Your task to perform on an android device: allow notifications from all sites in the chrome app Image 0: 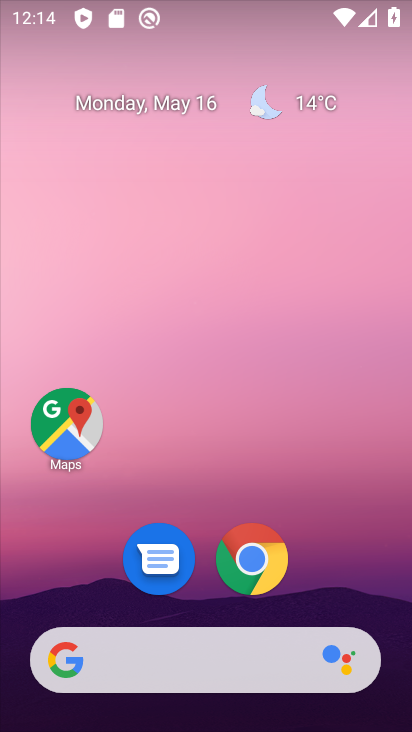
Step 0: click (270, 548)
Your task to perform on an android device: allow notifications from all sites in the chrome app Image 1: 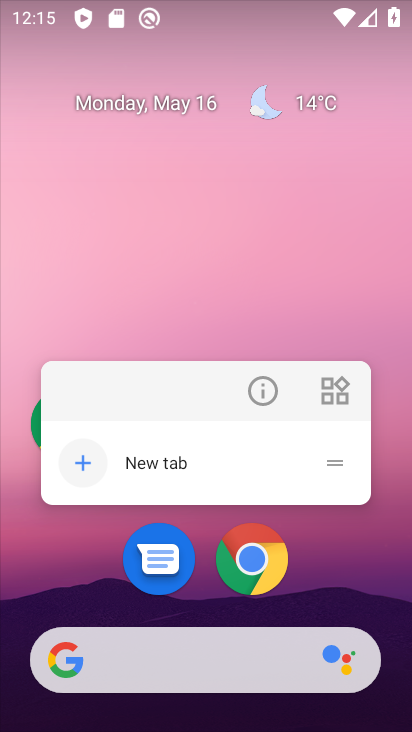
Step 1: click (235, 564)
Your task to perform on an android device: allow notifications from all sites in the chrome app Image 2: 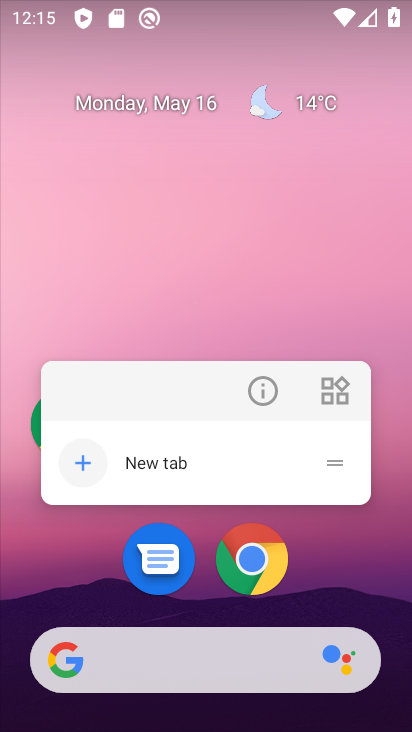
Step 2: click (269, 581)
Your task to perform on an android device: allow notifications from all sites in the chrome app Image 3: 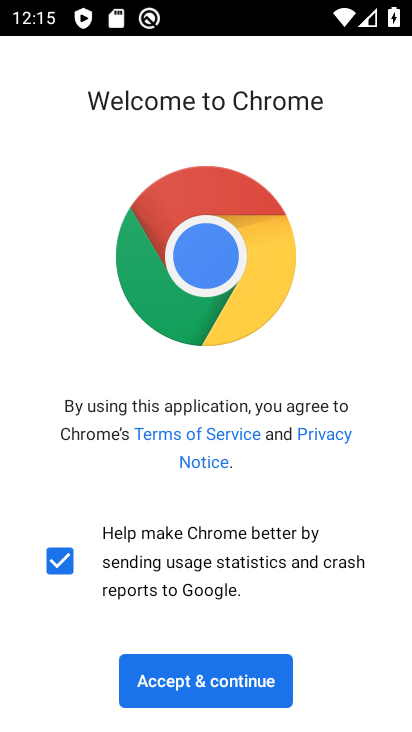
Step 3: click (205, 690)
Your task to perform on an android device: allow notifications from all sites in the chrome app Image 4: 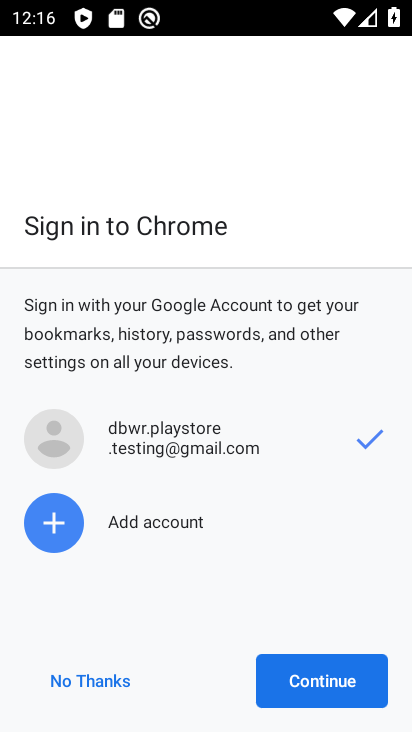
Step 4: click (330, 694)
Your task to perform on an android device: allow notifications from all sites in the chrome app Image 5: 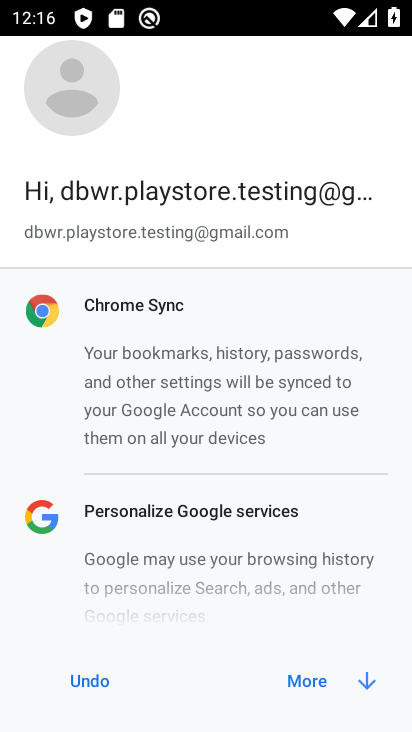
Step 5: click (324, 677)
Your task to perform on an android device: allow notifications from all sites in the chrome app Image 6: 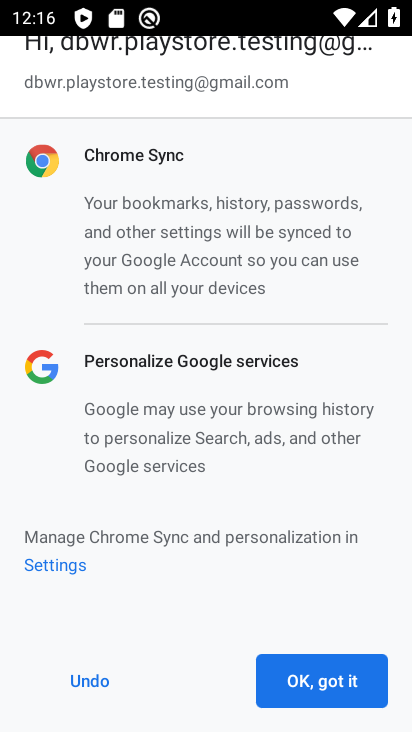
Step 6: click (324, 676)
Your task to perform on an android device: allow notifications from all sites in the chrome app Image 7: 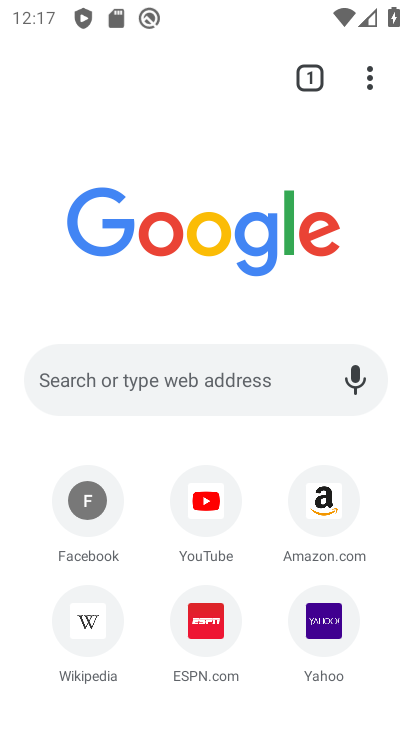
Step 7: drag from (365, 82) to (49, 624)
Your task to perform on an android device: allow notifications from all sites in the chrome app Image 8: 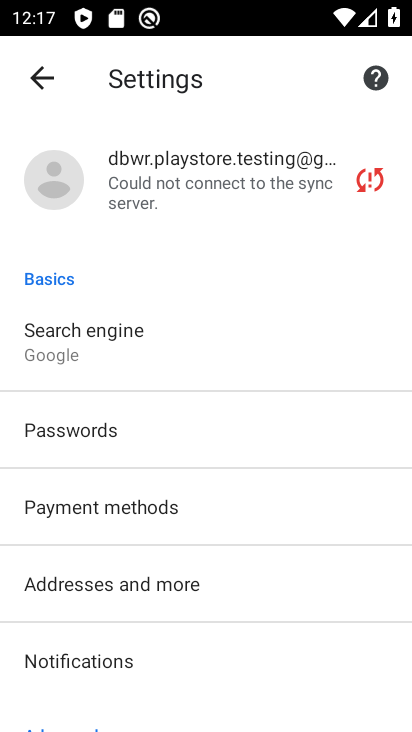
Step 8: drag from (153, 604) to (188, 178)
Your task to perform on an android device: allow notifications from all sites in the chrome app Image 9: 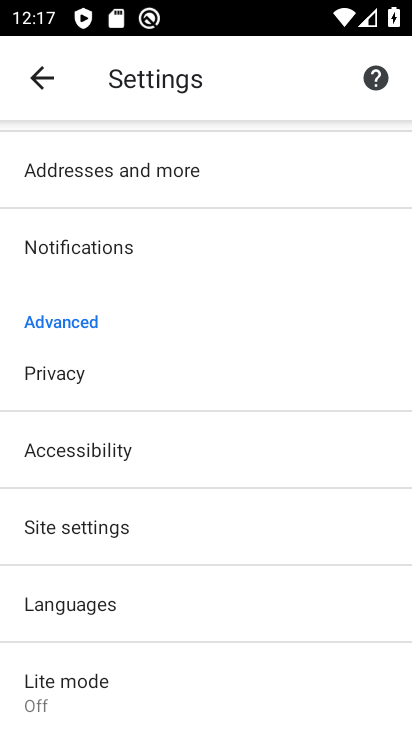
Step 9: click (94, 245)
Your task to perform on an android device: allow notifications from all sites in the chrome app Image 10: 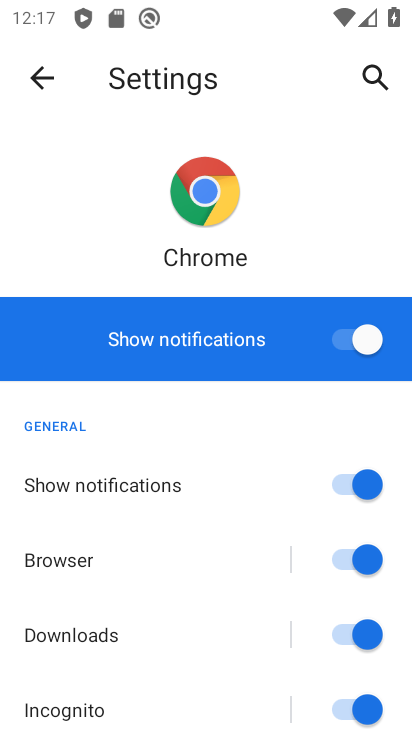
Step 10: click (35, 77)
Your task to perform on an android device: allow notifications from all sites in the chrome app Image 11: 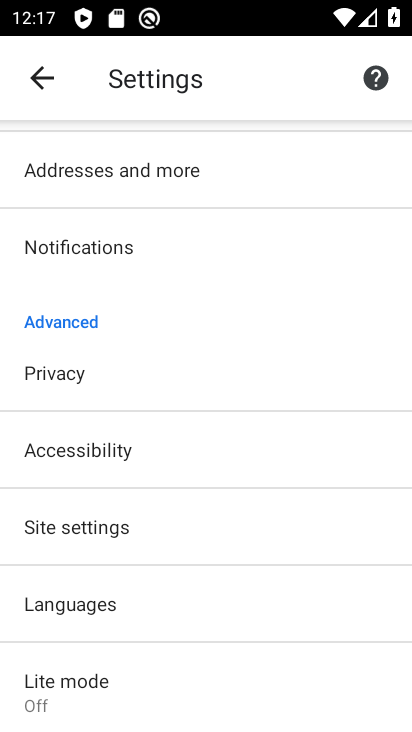
Step 11: click (102, 522)
Your task to perform on an android device: allow notifications from all sites in the chrome app Image 12: 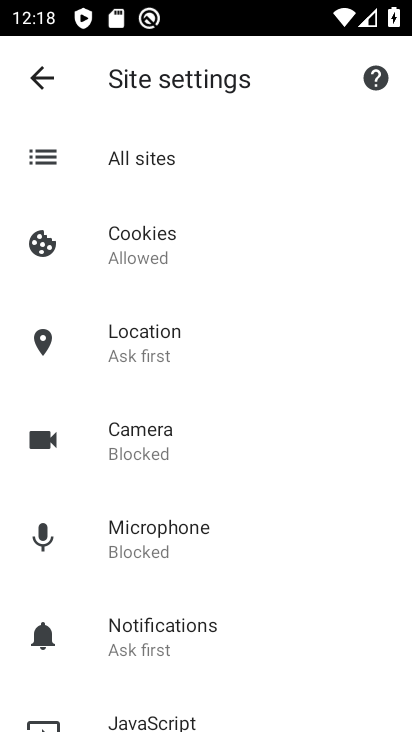
Step 12: drag from (227, 677) to (222, 299)
Your task to perform on an android device: allow notifications from all sites in the chrome app Image 13: 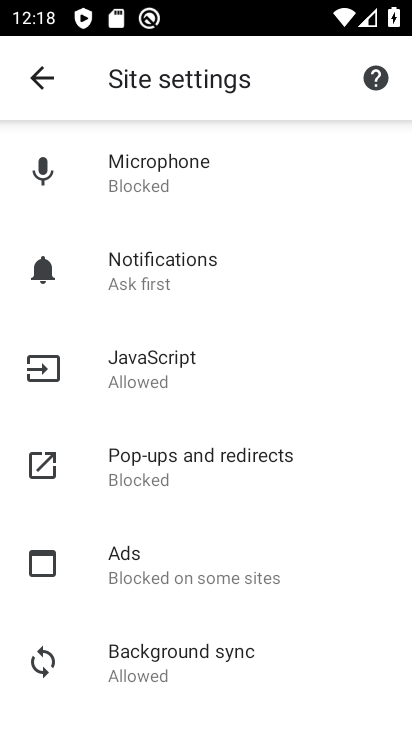
Step 13: drag from (213, 666) to (187, 266)
Your task to perform on an android device: allow notifications from all sites in the chrome app Image 14: 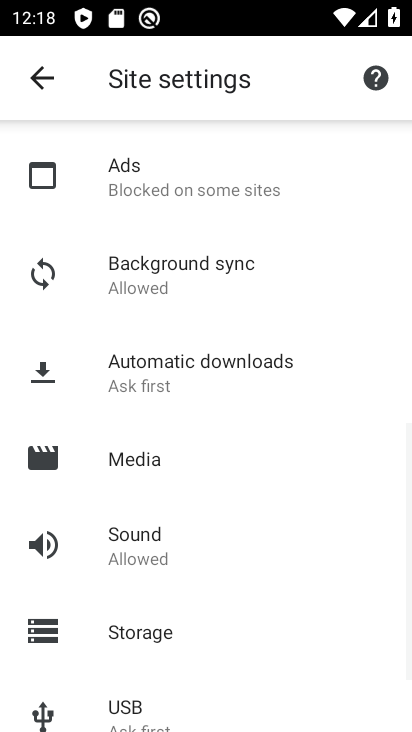
Step 14: drag from (191, 272) to (224, 629)
Your task to perform on an android device: allow notifications from all sites in the chrome app Image 15: 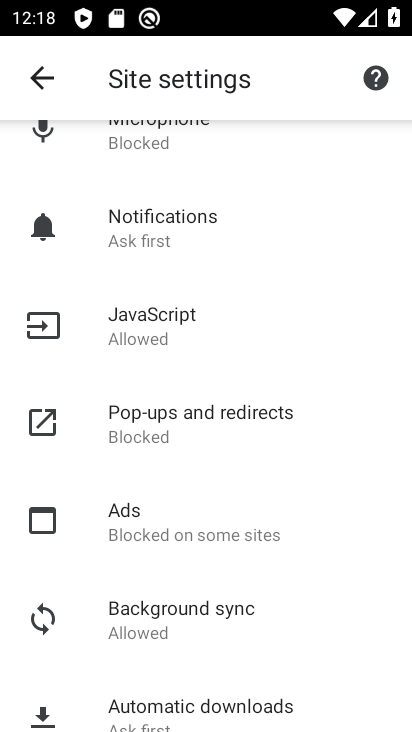
Step 15: click (164, 238)
Your task to perform on an android device: allow notifications from all sites in the chrome app Image 16: 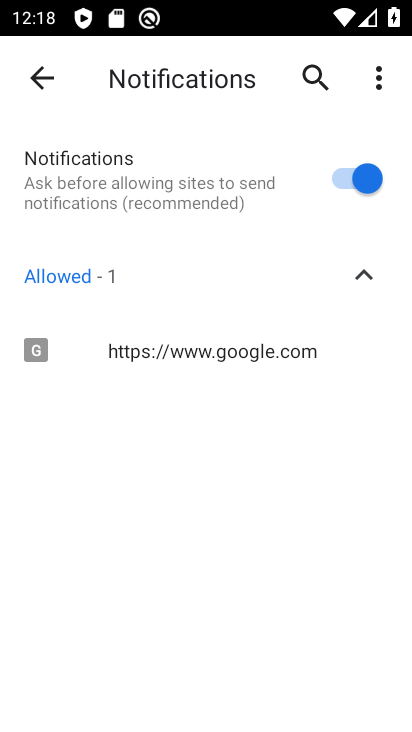
Step 16: task complete